Your task to perform on an android device: Go to internet settings Image 0: 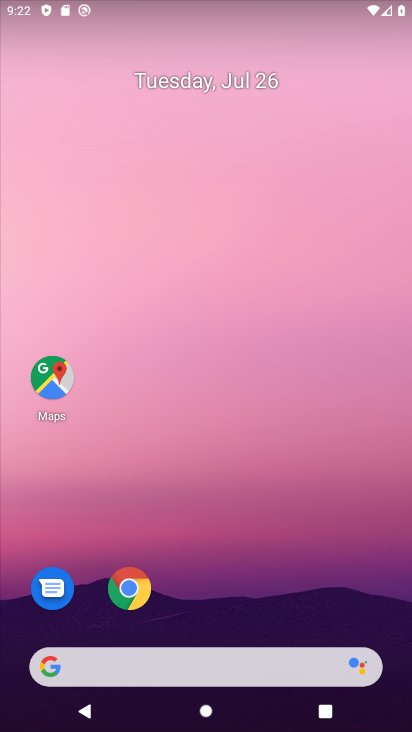
Step 0: drag from (198, 634) to (200, 355)
Your task to perform on an android device: Go to internet settings Image 1: 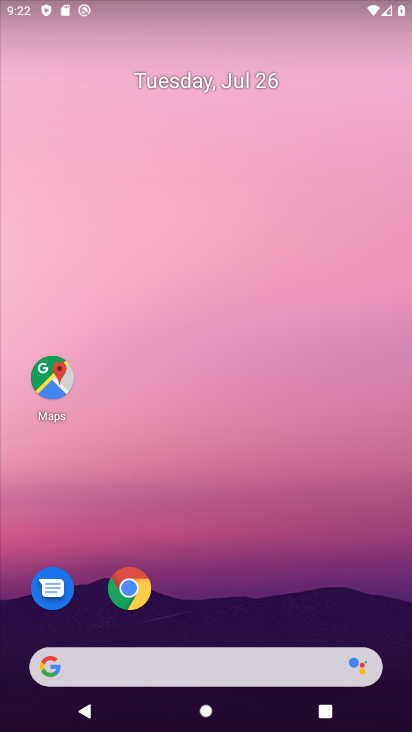
Step 1: drag from (179, 627) to (165, 116)
Your task to perform on an android device: Go to internet settings Image 2: 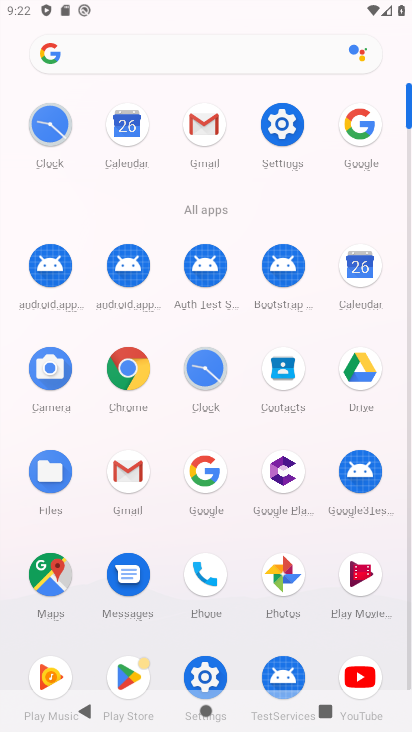
Step 2: click (282, 120)
Your task to perform on an android device: Go to internet settings Image 3: 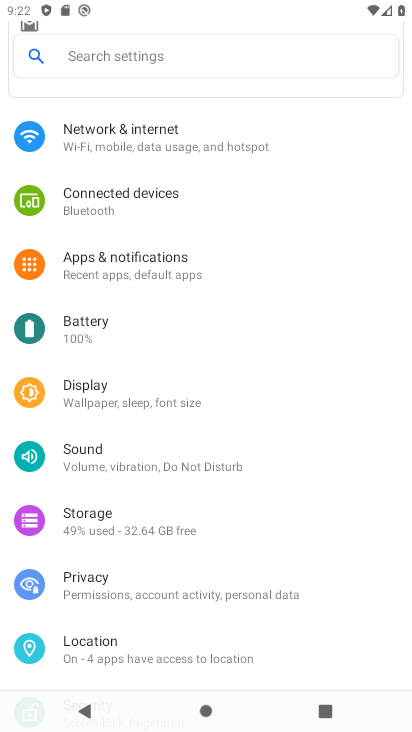
Step 3: click (86, 140)
Your task to perform on an android device: Go to internet settings Image 4: 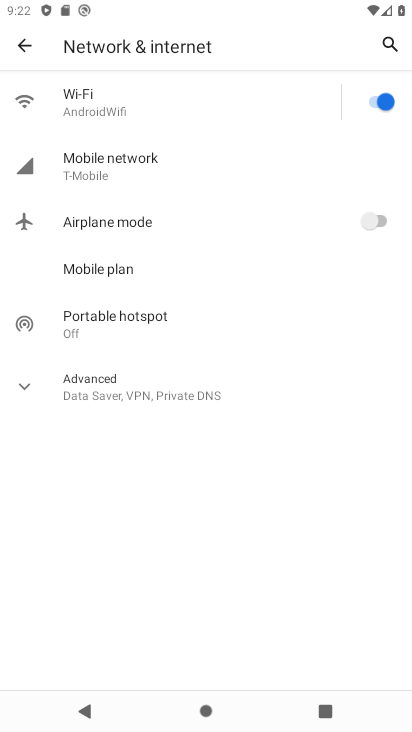
Step 4: click (94, 162)
Your task to perform on an android device: Go to internet settings Image 5: 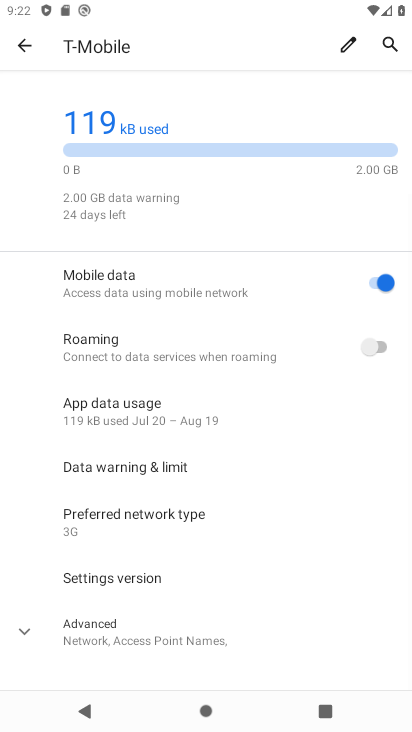
Step 5: click (158, 639)
Your task to perform on an android device: Go to internet settings Image 6: 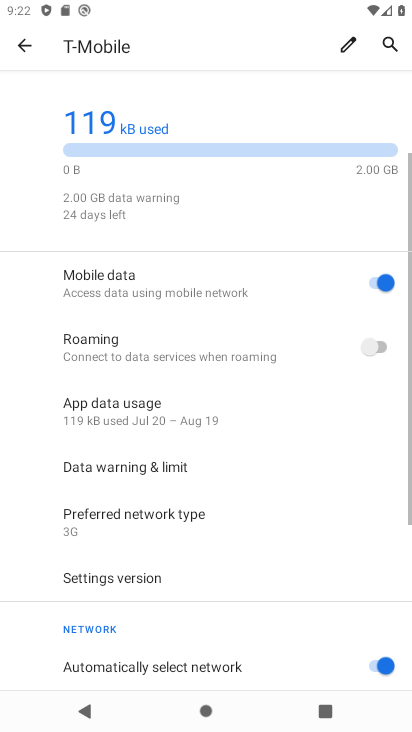
Step 6: task complete